Your task to perform on an android device: change the clock display to digital Image 0: 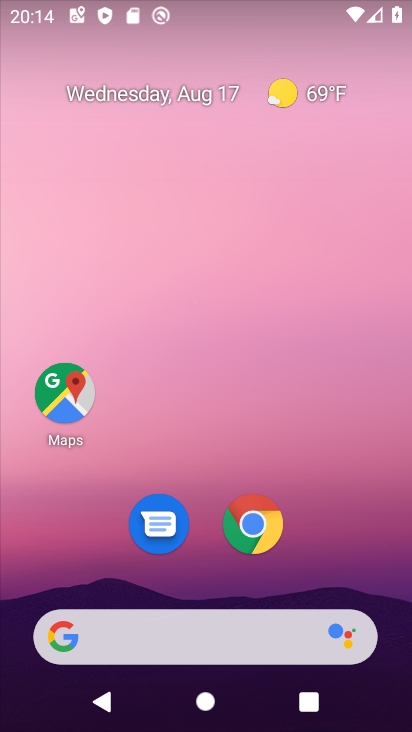
Step 0: drag from (338, 513) to (327, 22)
Your task to perform on an android device: change the clock display to digital Image 1: 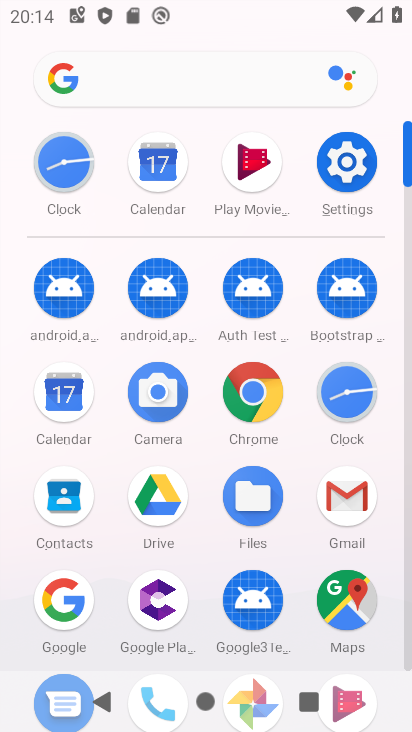
Step 1: click (82, 159)
Your task to perform on an android device: change the clock display to digital Image 2: 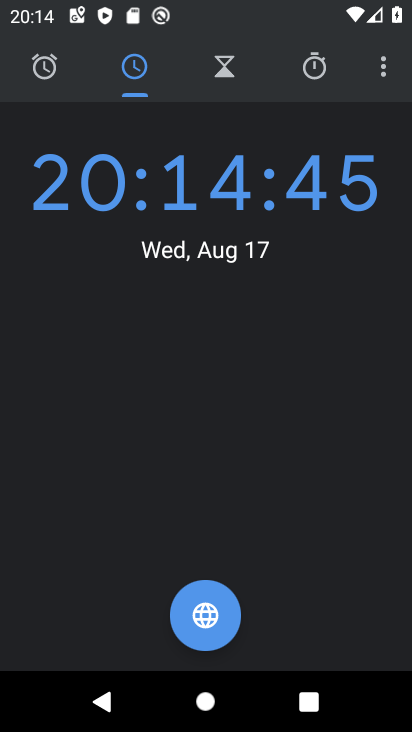
Step 2: task complete